Your task to perform on an android device: Open network settings Image 0: 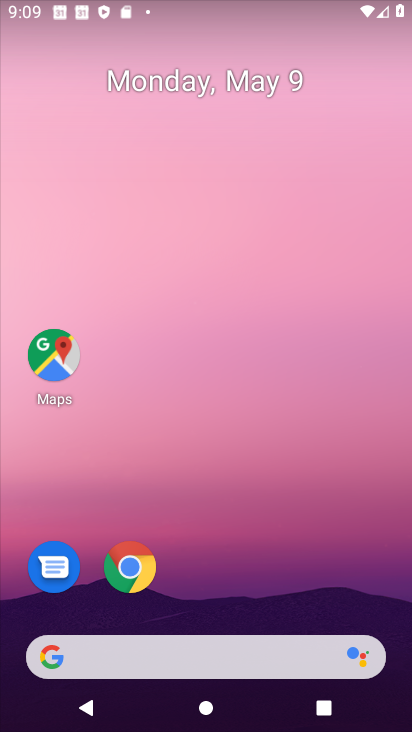
Step 0: drag from (232, 657) to (234, 30)
Your task to perform on an android device: Open network settings Image 1: 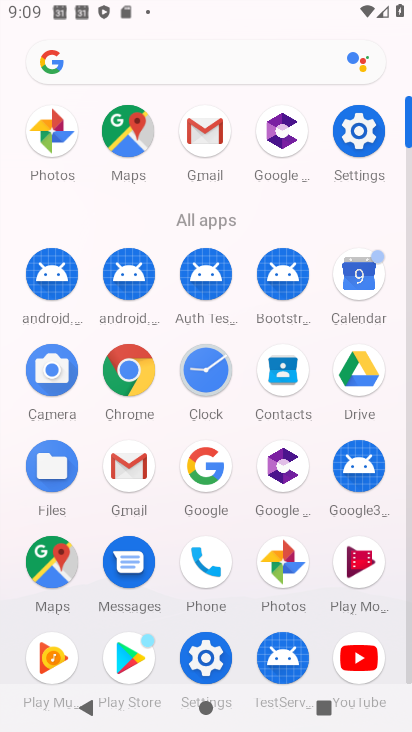
Step 1: click (374, 133)
Your task to perform on an android device: Open network settings Image 2: 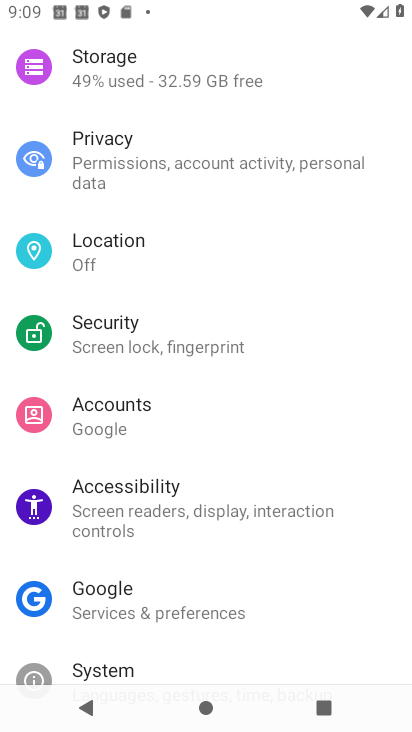
Step 2: drag from (66, 96) to (95, 399)
Your task to perform on an android device: Open network settings Image 3: 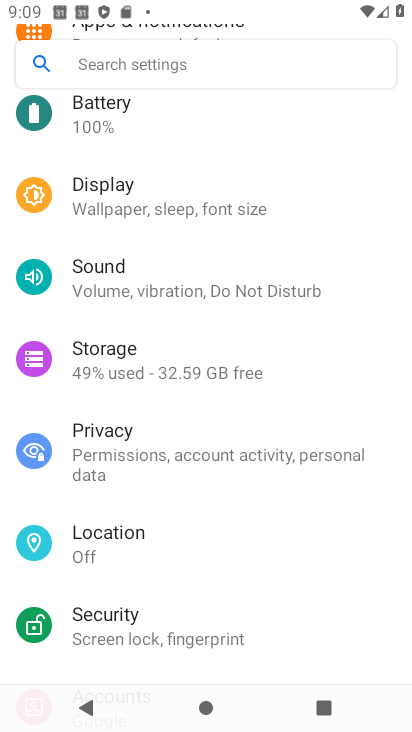
Step 3: drag from (136, 154) to (131, 583)
Your task to perform on an android device: Open network settings Image 4: 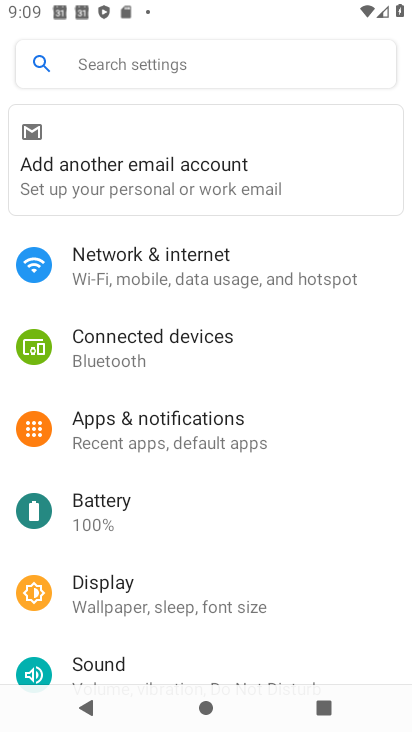
Step 4: click (156, 264)
Your task to perform on an android device: Open network settings Image 5: 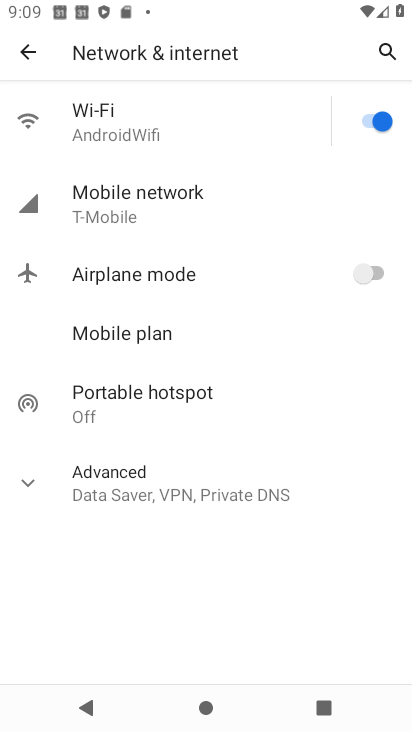
Step 5: task complete